Your task to perform on an android device: What's the weather today? Image 0: 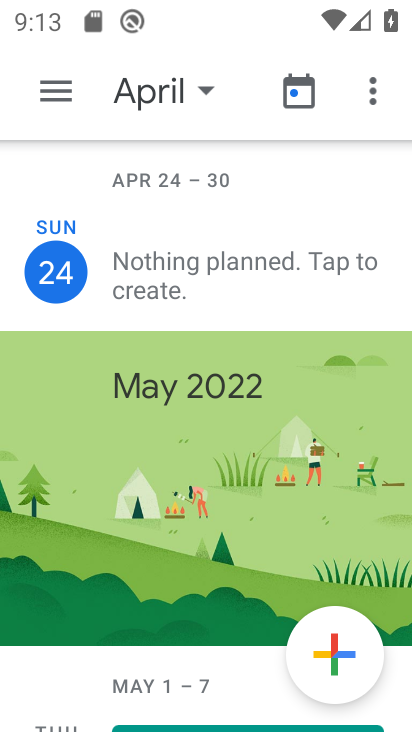
Step 0: press home button
Your task to perform on an android device: What's the weather today? Image 1: 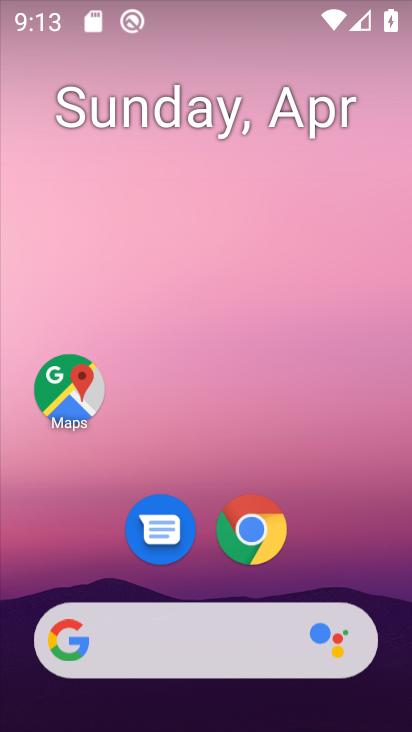
Step 1: drag from (108, 318) to (397, 311)
Your task to perform on an android device: What's the weather today? Image 2: 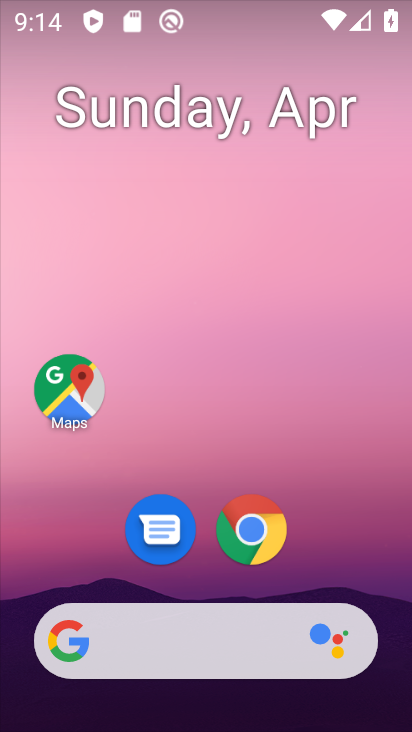
Step 2: drag from (75, 301) to (387, 294)
Your task to perform on an android device: What's the weather today? Image 3: 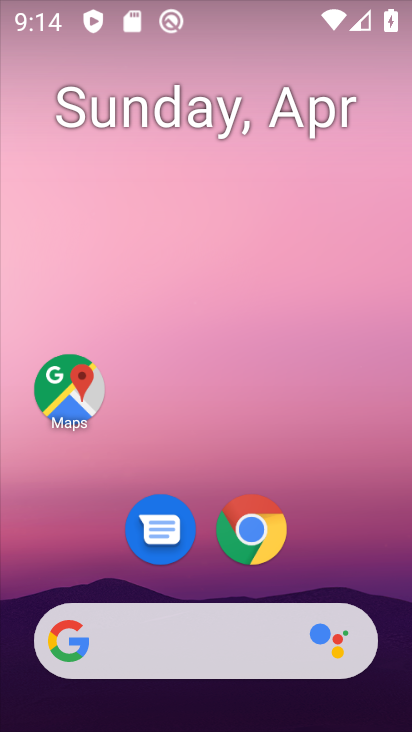
Step 3: drag from (6, 324) to (405, 267)
Your task to perform on an android device: What's the weather today? Image 4: 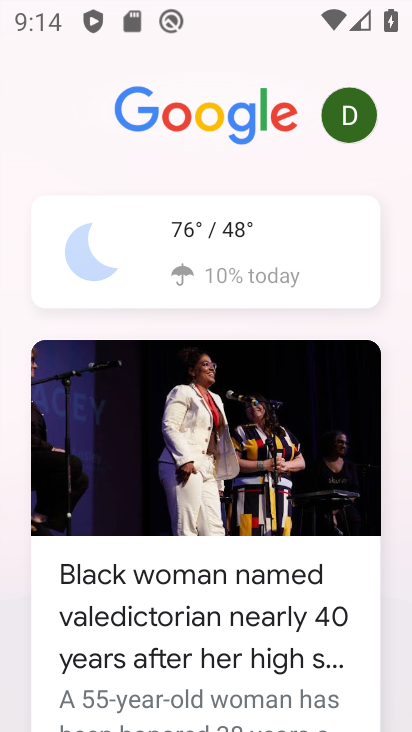
Step 4: click (264, 241)
Your task to perform on an android device: What's the weather today? Image 5: 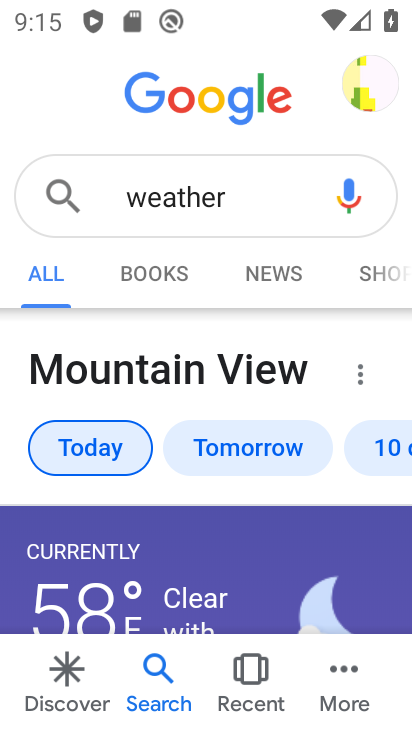
Step 5: task complete